Your task to perform on an android device: Open Google Chrome Image 0: 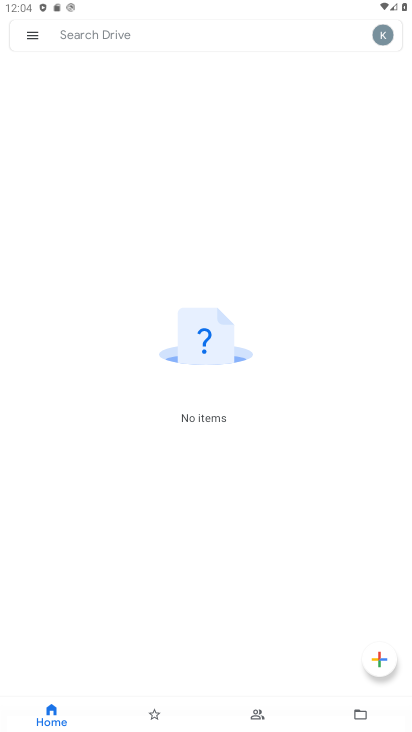
Step 0: press home button
Your task to perform on an android device: Open Google Chrome Image 1: 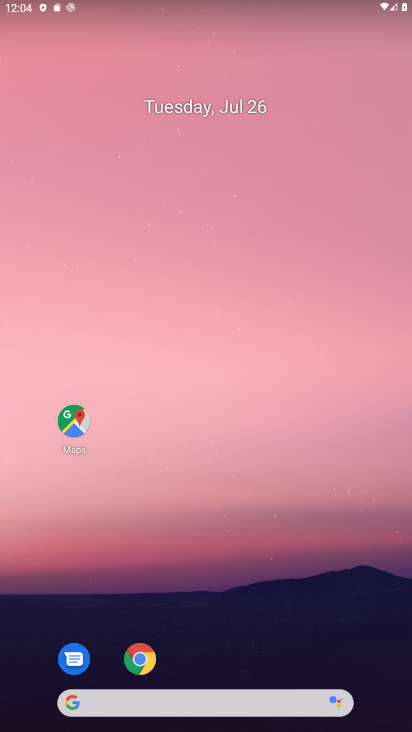
Step 1: click (142, 658)
Your task to perform on an android device: Open Google Chrome Image 2: 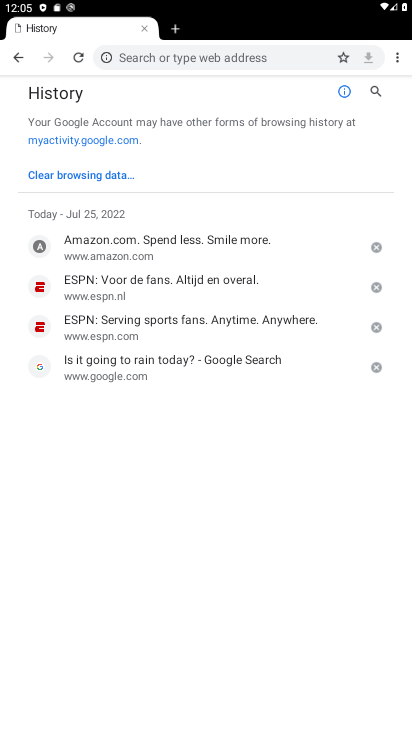
Step 2: task complete